Your task to perform on an android device: toggle notifications settings in the gmail app Image 0: 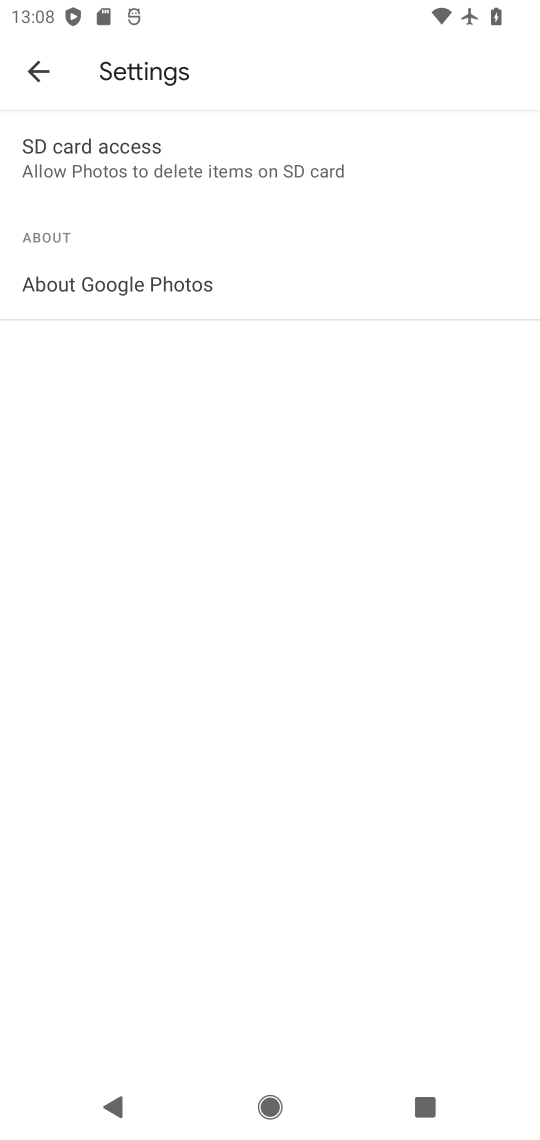
Step 0: press home button
Your task to perform on an android device: toggle notifications settings in the gmail app Image 1: 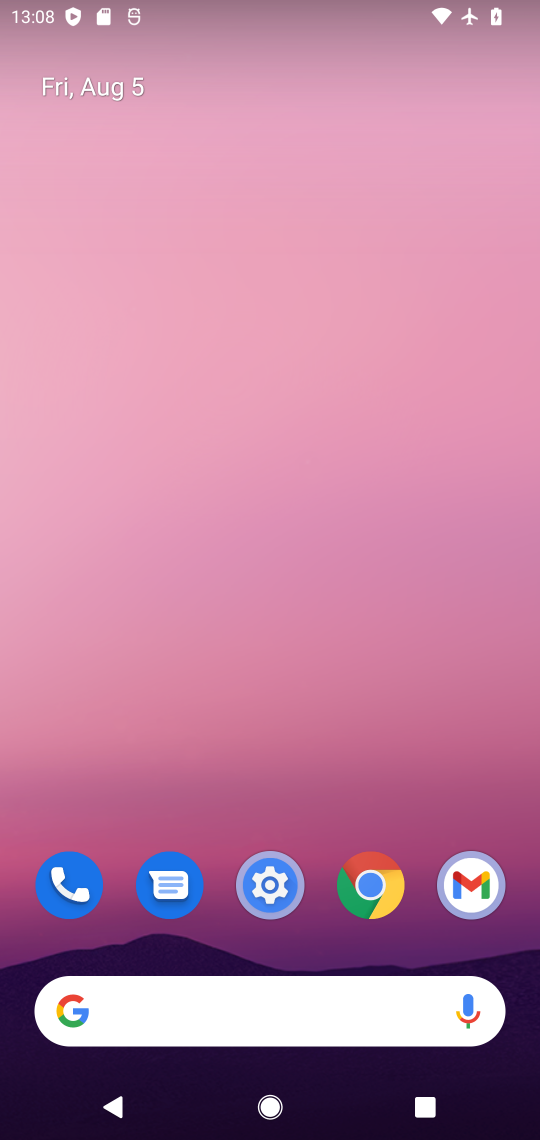
Step 1: click (485, 887)
Your task to perform on an android device: toggle notifications settings in the gmail app Image 2: 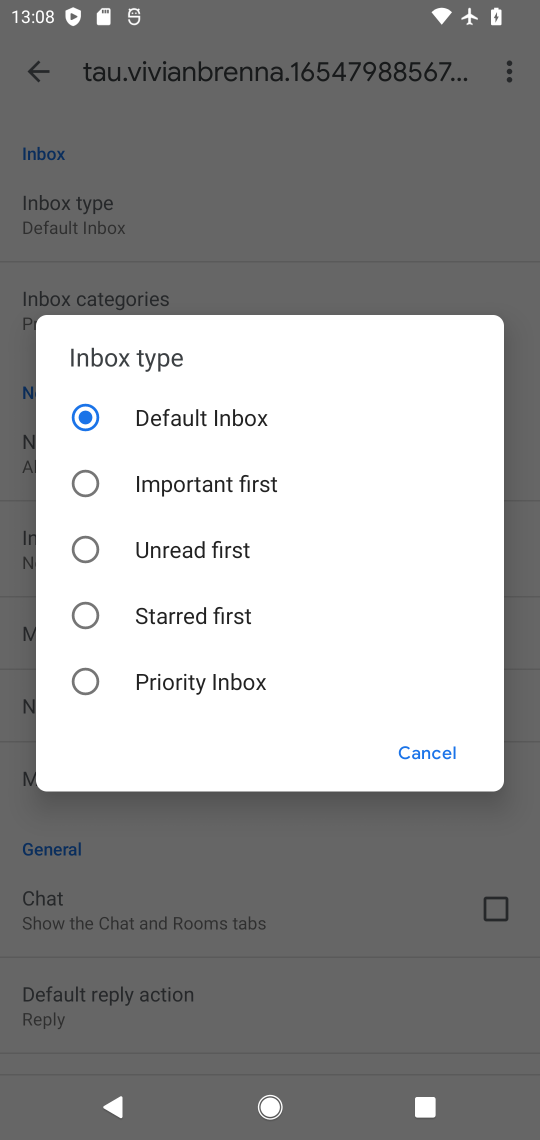
Step 2: click (432, 752)
Your task to perform on an android device: toggle notifications settings in the gmail app Image 3: 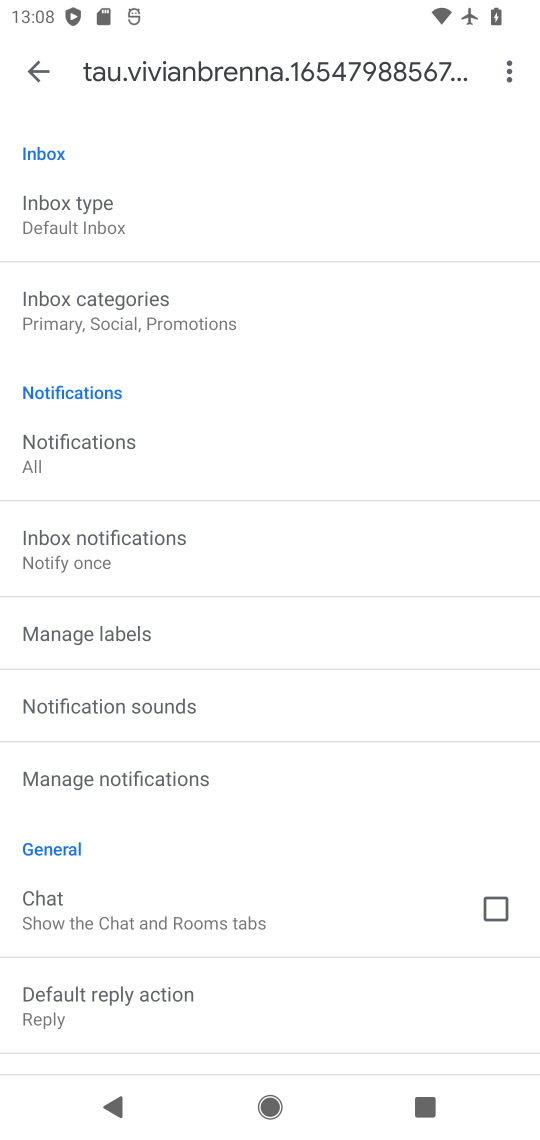
Step 3: click (91, 215)
Your task to perform on an android device: toggle notifications settings in the gmail app Image 4: 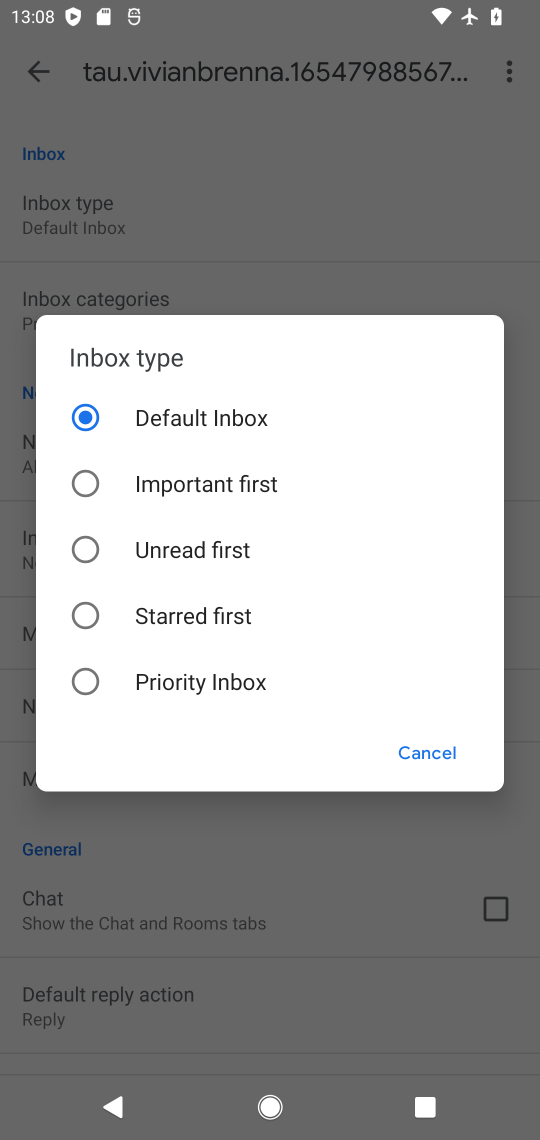
Step 4: click (431, 757)
Your task to perform on an android device: toggle notifications settings in the gmail app Image 5: 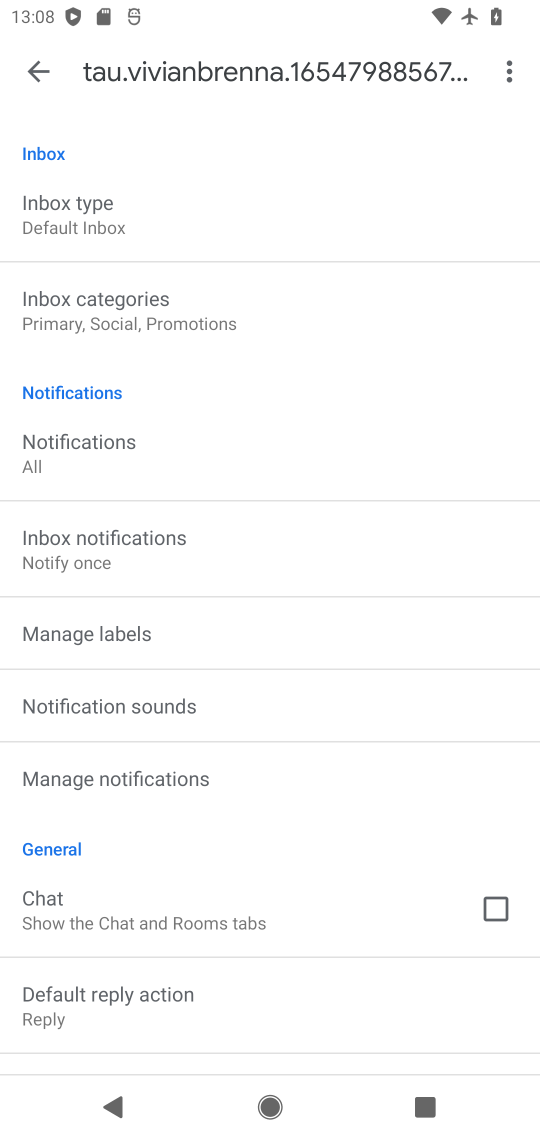
Step 5: click (63, 452)
Your task to perform on an android device: toggle notifications settings in the gmail app Image 6: 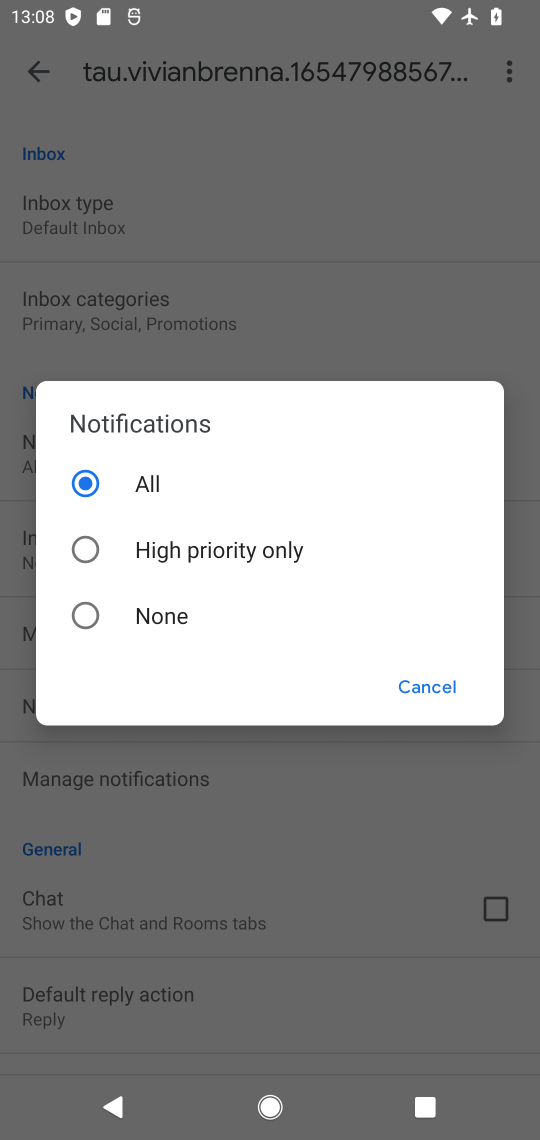
Step 6: click (73, 614)
Your task to perform on an android device: toggle notifications settings in the gmail app Image 7: 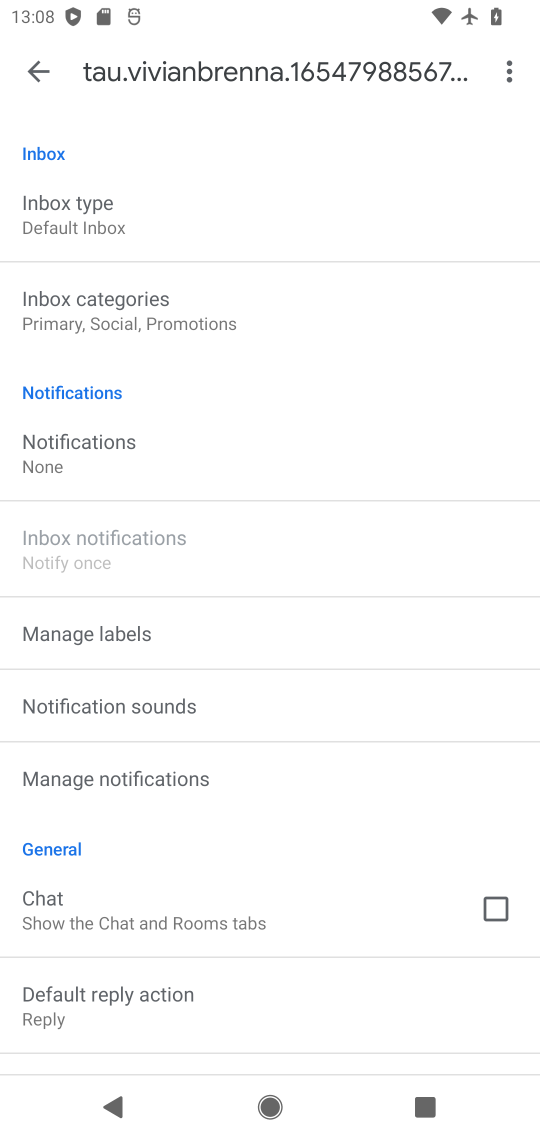
Step 7: task complete